Your task to perform on an android device: Go to network settings Image 0: 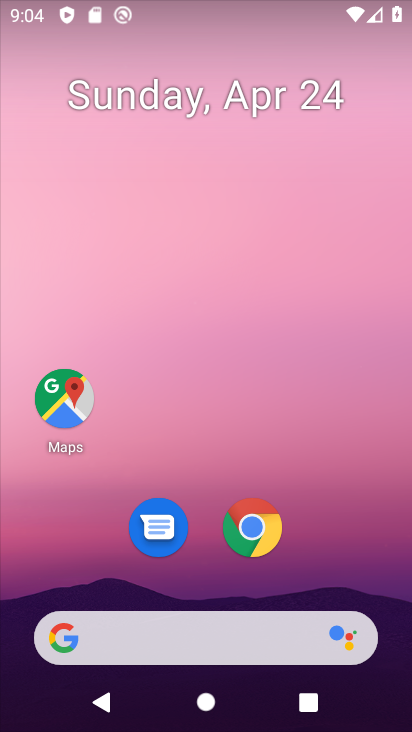
Step 0: drag from (207, 545) to (266, 56)
Your task to perform on an android device: Go to network settings Image 1: 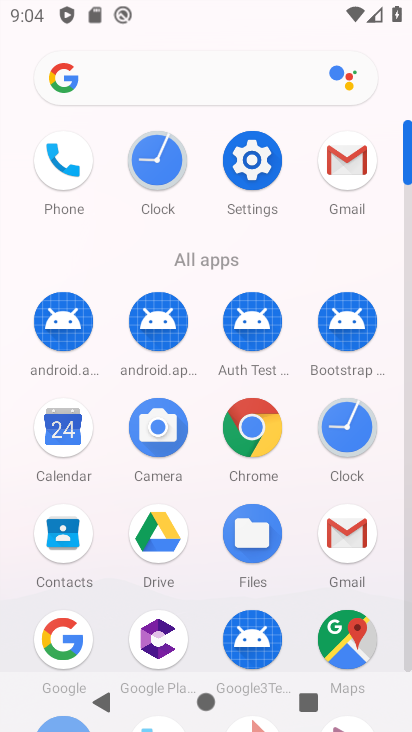
Step 1: click (244, 145)
Your task to perform on an android device: Go to network settings Image 2: 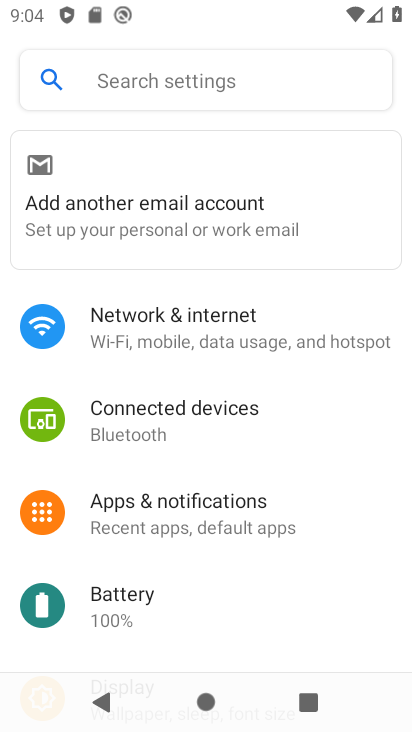
Step 2: click (204, 334)
Your task to perform on an android device: Go to network settings Image 3: 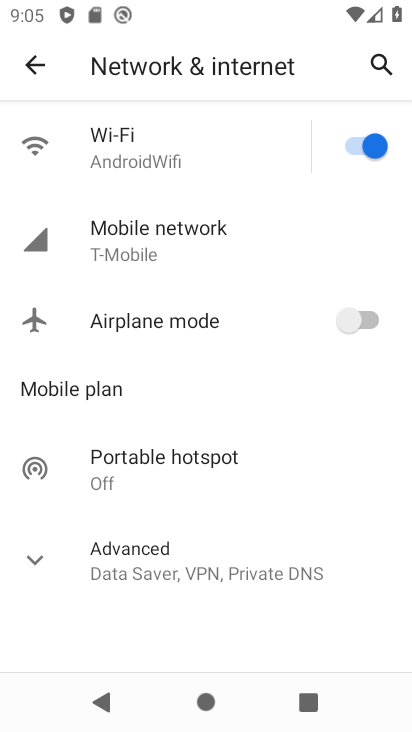
Step 3: task complete